Your task to perform on an android device: turn on showing notifications on the lock screen Image 0: 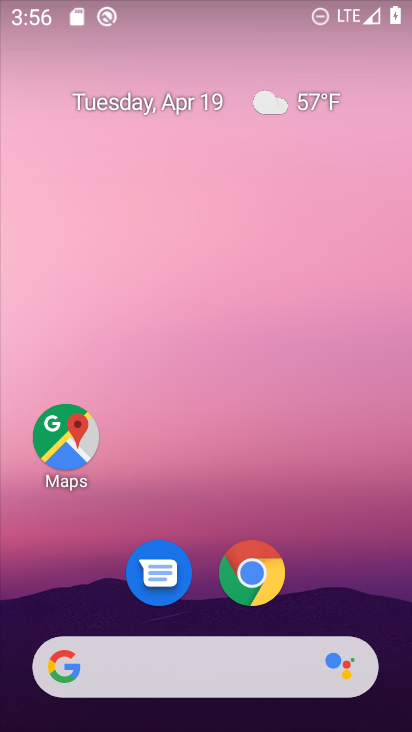
Step 0: drag from (387, 504) to (391, 24)
Your task to perform on an android device: turn on showing notifications on the lock screen Image 1: 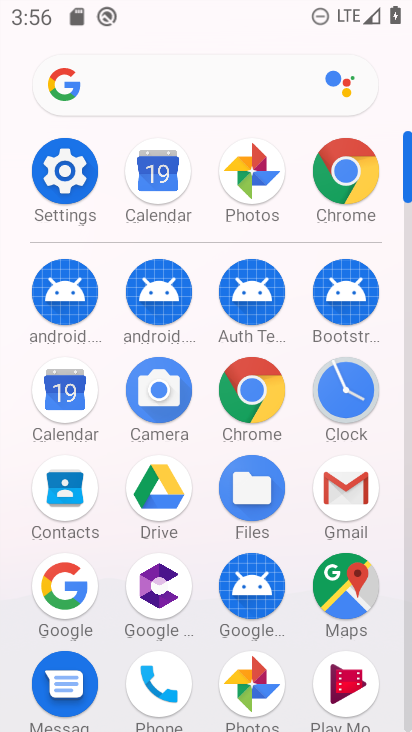
Step 1: click (65, 173)
Your task to perform on an android device: turn on showing notifications on the lock screen Image 2: 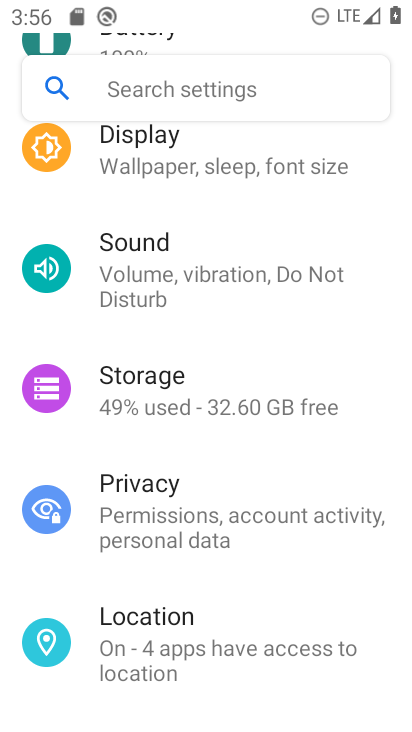
Step 2: drag from (387, 541) to (379, 220)
Your task to perform on an android device: turn on showing notifications on the lock screen Image 3: 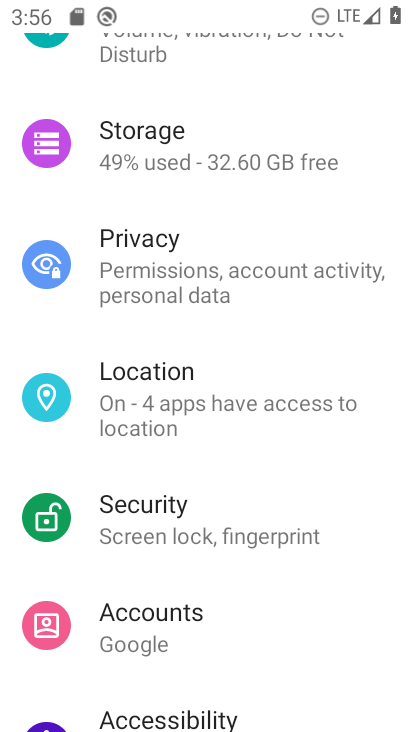
Step 3: drag from (378, 218) to (378, 697)
Your task to perform on an android device: turn on showing notifications on the lock screen Image 4: 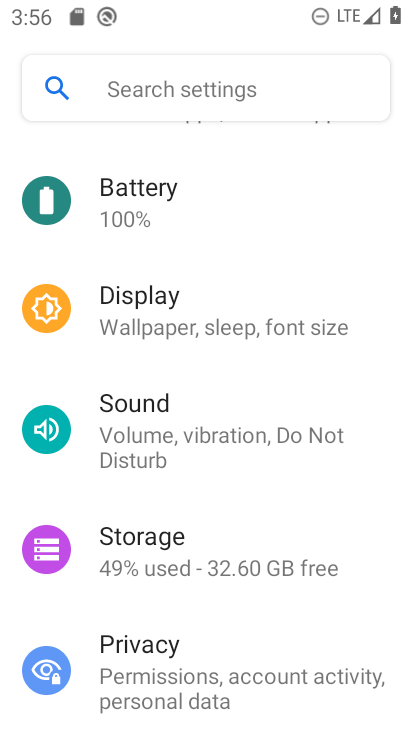
Step 4: drag from (386, 307) to (369, 611)
Your task to perform on an android device: turn on showing notifications on the lock screen Image 5: 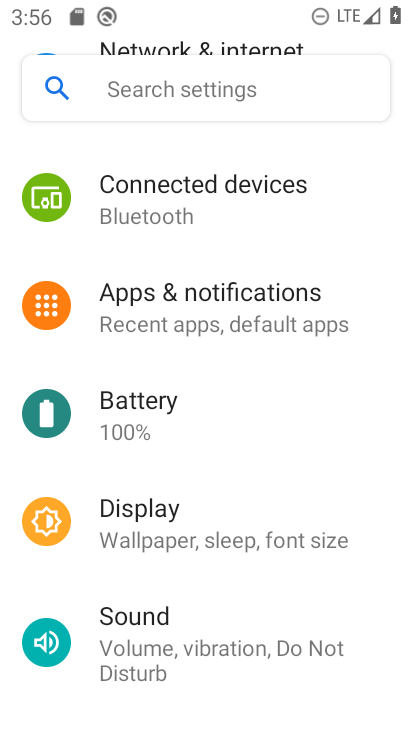
Step 5: click (200, 314)
Your task to perform on an android device: turn on showing notifications on the lock screen Image 6: 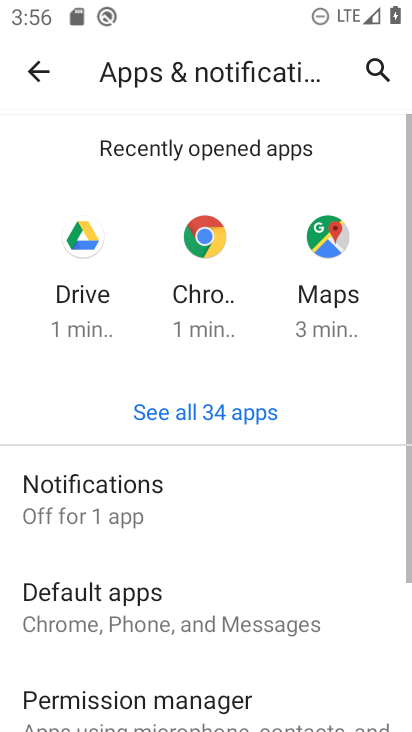
Step 6: click (78, 495)
Your task to perform on an android device: turn on showing notifications on the lock screen Image 7: 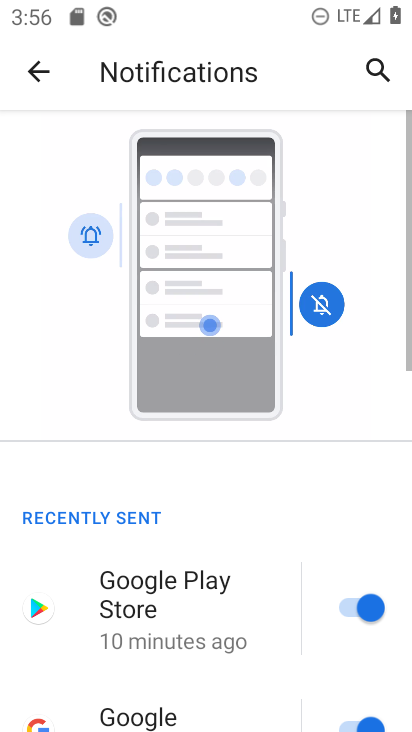
Step 7: drag from (281, 570) to (282, 175)
Your task to perform on an android device: turn on showing notifications on the lock screen Image 8: 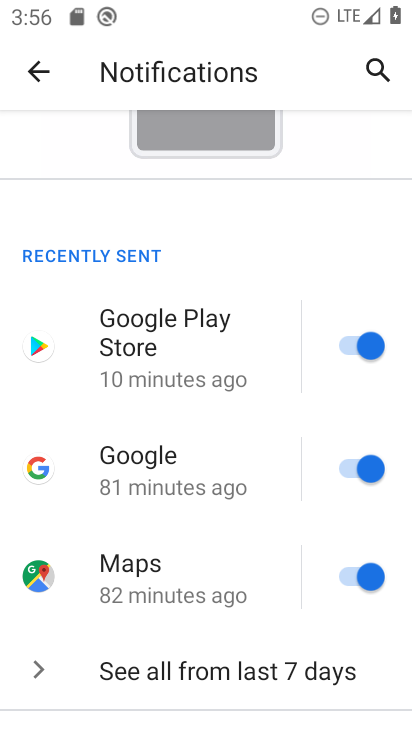
Step 8: drag from (225, 539) to (184, 180)
Your task to perform on an android device: turn on showing notifications on the lock screen Image 9: 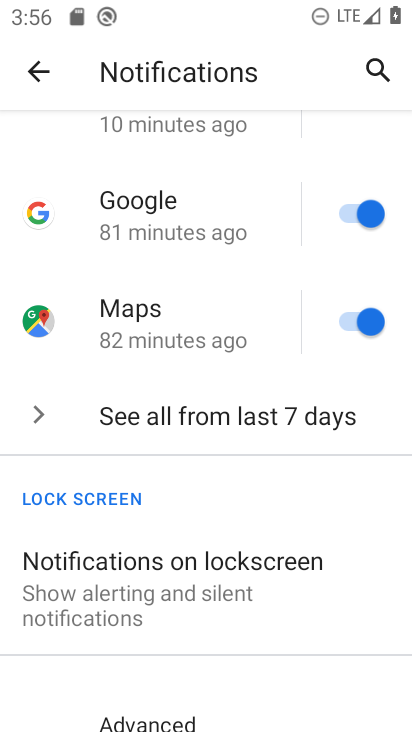
Step 9: click (95, 598)
Your task to perform on an android device: turn on showing notifications on the lock screen Image 10: 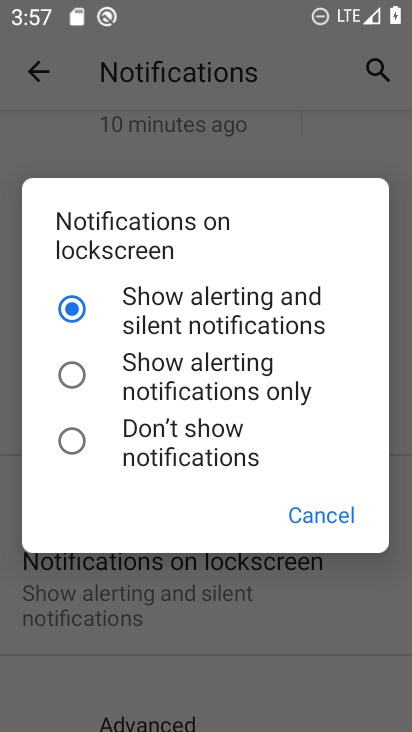
Step 10: task complete